Your task to perform on an android device: Is it going to rain today? Image 0: 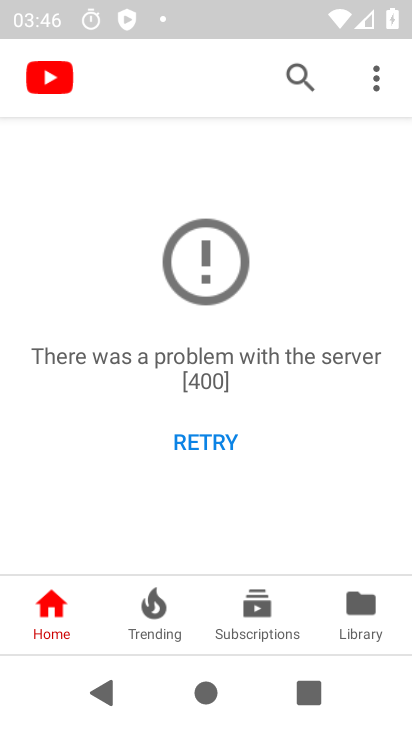
Step 0: press home button
Your task to perform on an android device: Is it going to rain today? Image 1: 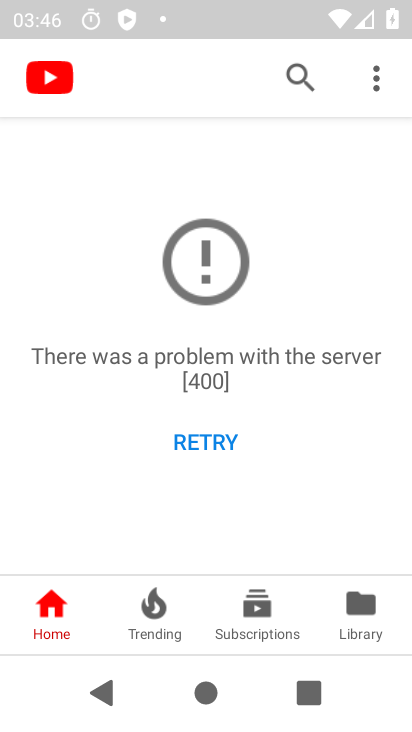
Step 1: press home button
Your task to perform on an android device: Is it going to rain today? Image 2: 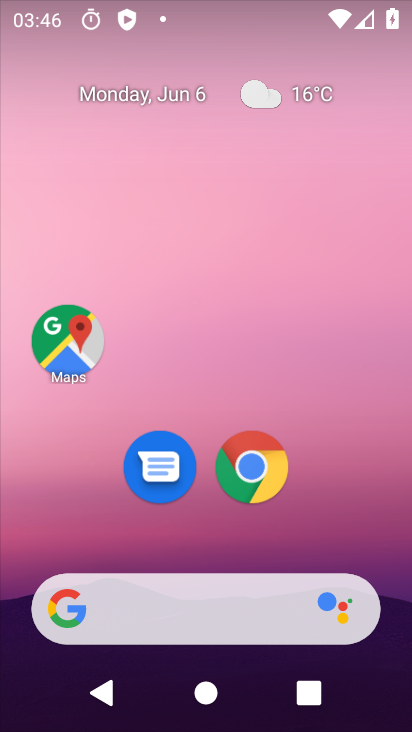
Step 2: click (313, 89)
Your task to perform on an android device: Is it going to rain today? Image 3: 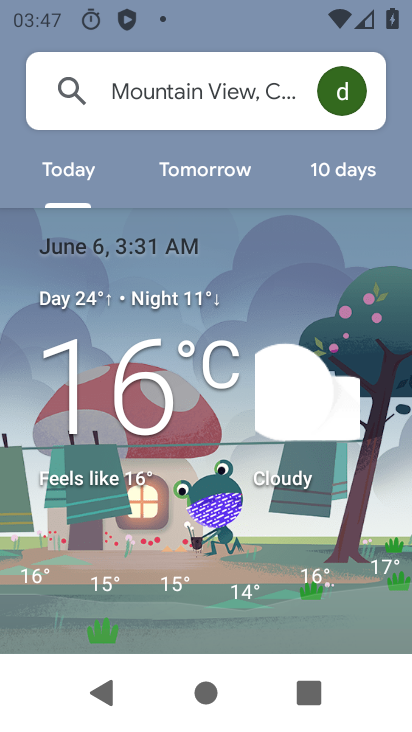
Step 3: task complete